Your task to perform on an android device: toggle data saver in the chrome app Image 0: 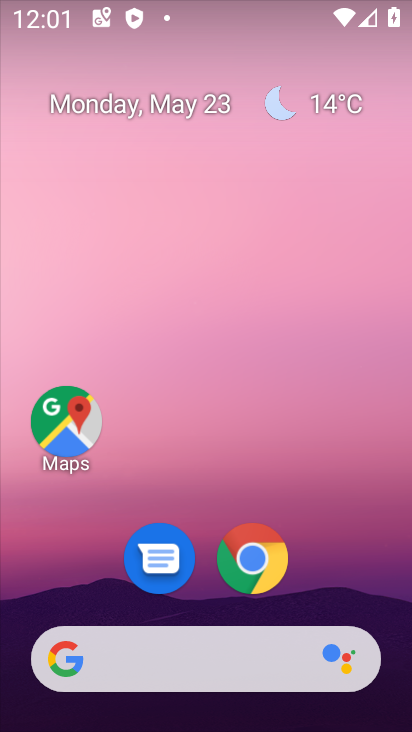
Step 0: click (253, 562)
Your task to perform on an android device: toggle data saver in the chrome app Image 1: 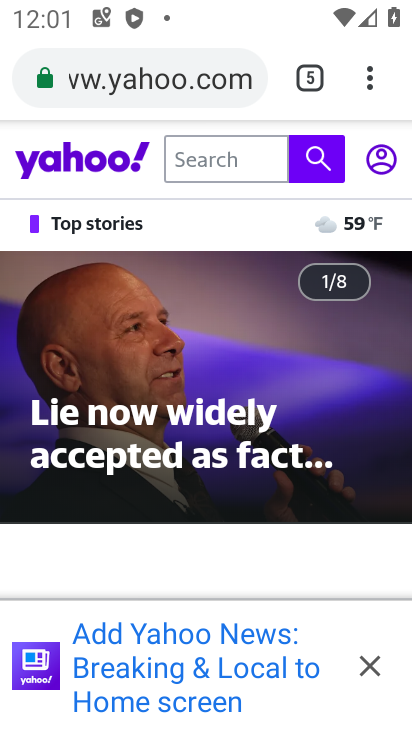
Step 1: click (371, 84)
Your task to perform on an android device: toggle data saver in the chrome app Image 2: 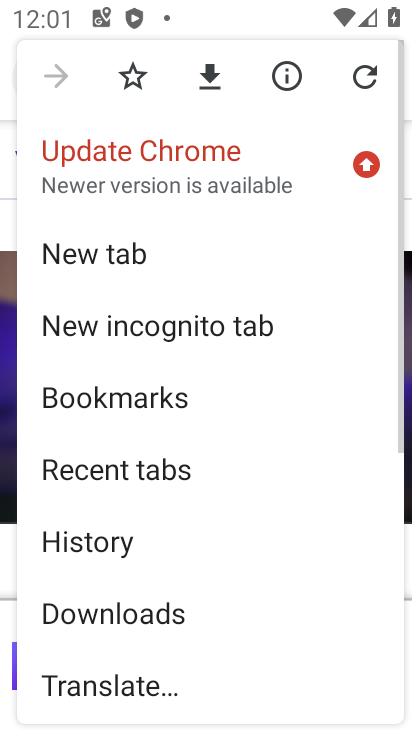
Step 2: drag from (217, 615) to (217, 147)
Your task to perform on an android device: toggle data saver in the chrome app Image 3: 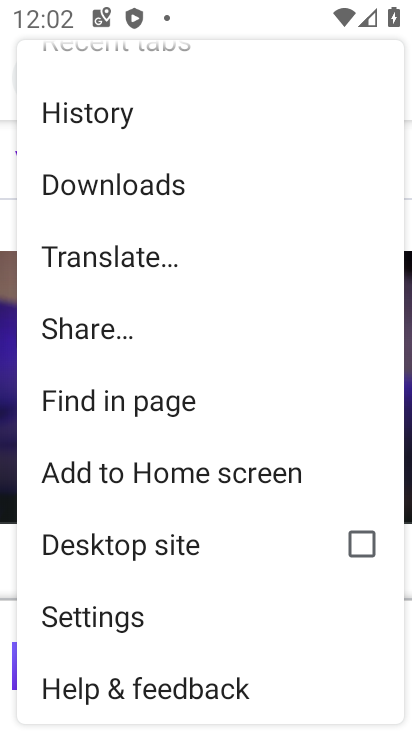
Step 3: click (134, 615)
Your task to perform on an android device: toggle data saver in the chrome app Image 4: 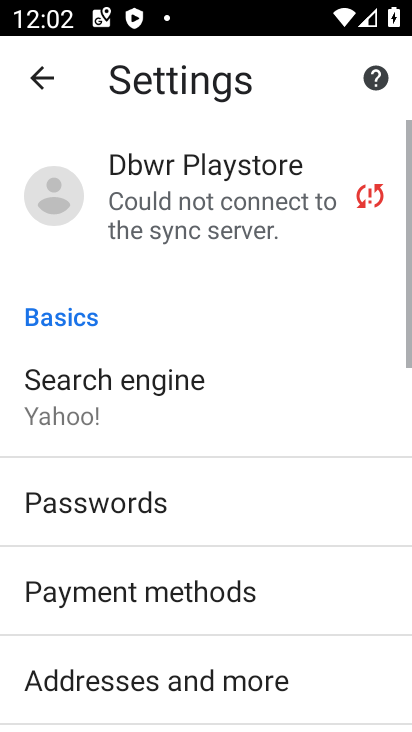
Step 4: drag from (218, 630) to (182, 60)
Your task to perform on an android device: toggle data saver in the chrome app Image 5: 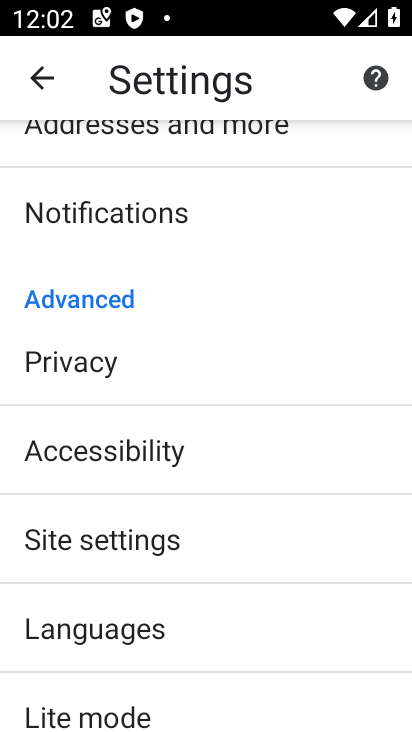
Step 5: drag from (199, 589) to (200, 245)
Your task to perform on an android device: toggle data saver in the chrome app Image 6: 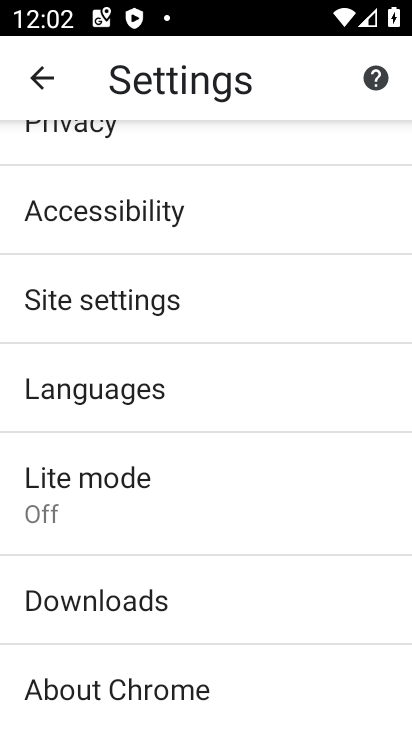
Step 6: click (81, 498)
Your task to perform on an android device: toggle data saver in the chrome app Image 7: 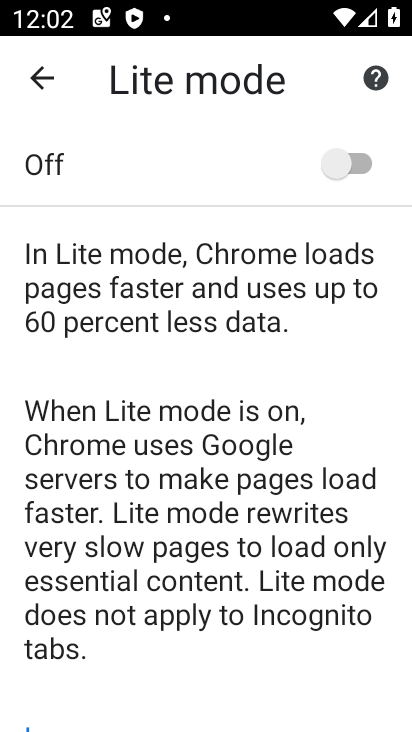
Step 7: click (353, 160)
Your task to perform on an android device: toggle data saver in the chrome app Image 8: 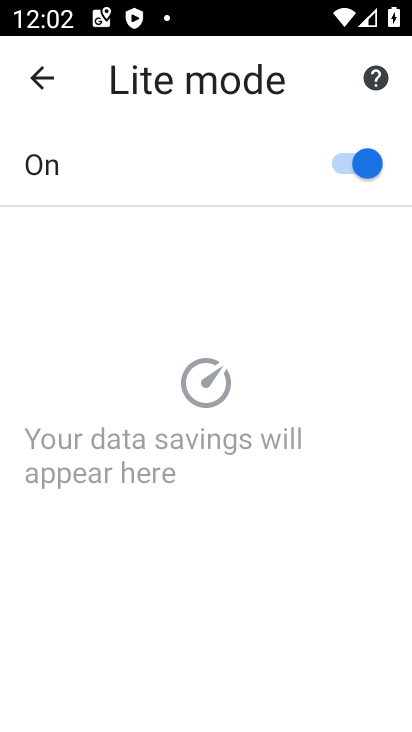
Step 8: task complete